Your task to perform on an android device: all mails in gmail Image 0: 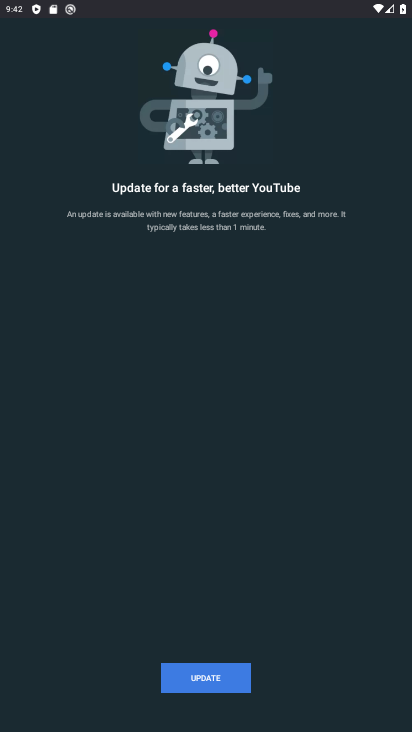
Step 0: press home button
Your task to perform on an android device: all mails in gmail Image 1: 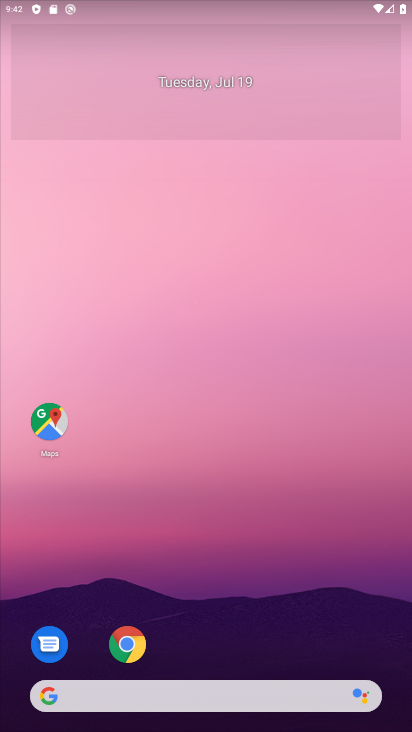
Step 1: drag from (307, 602) to (306, 204)
Your task to perform on an android device: all mails in gmail Image 2: 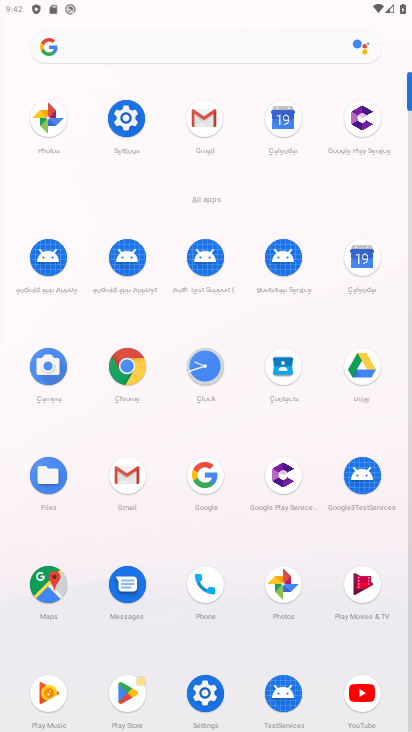
Step 2: click (119, 489)
Your task to perform on an android device: all mails in gmail Image 3: 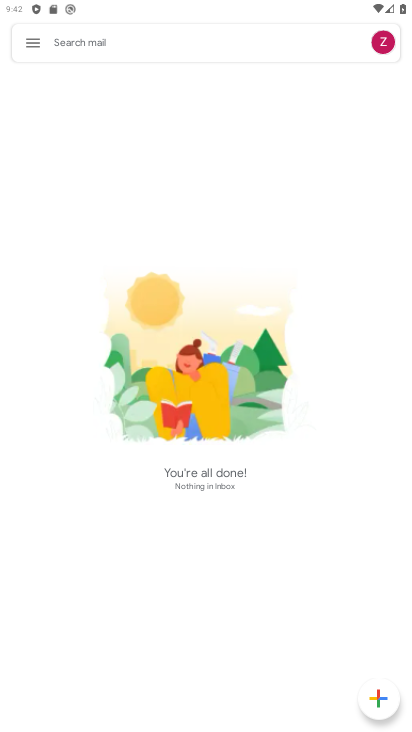
Step 3: click (39, 42)
Your task to perform on an android device: all mails in gmail Image 4: 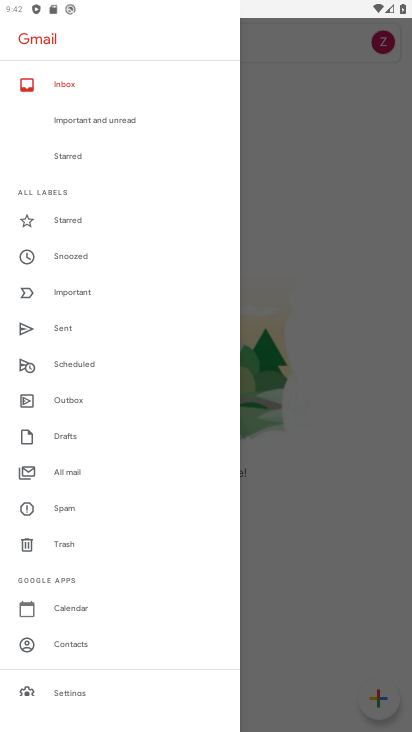
Step 4: click (62, 469)
Your task to perform on an android device: all mails in gmail Image 5: 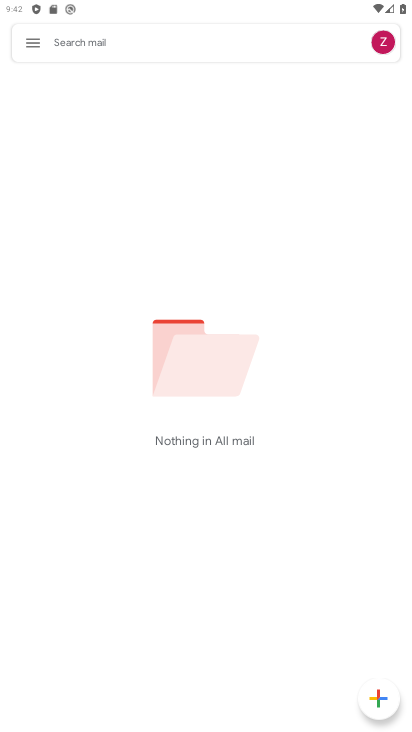
Step 5: task complete